Your task to perform on an android device: change the clock display to show seconds Image 0: 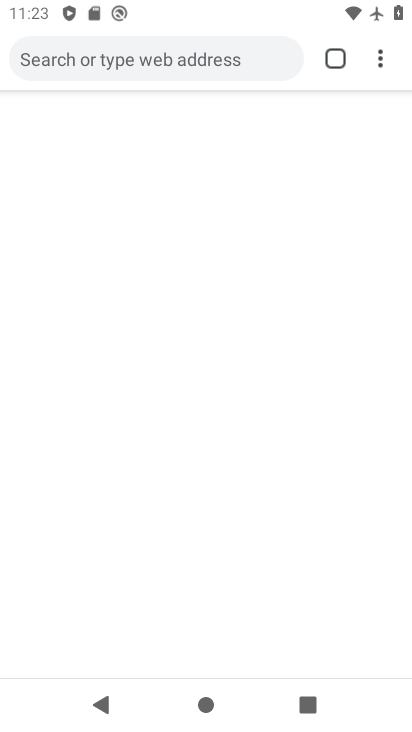
Step 0: drag from (180, 644) to (265, 466)
Your task to perform on an android device: change the clock display to show seconds Image 1: 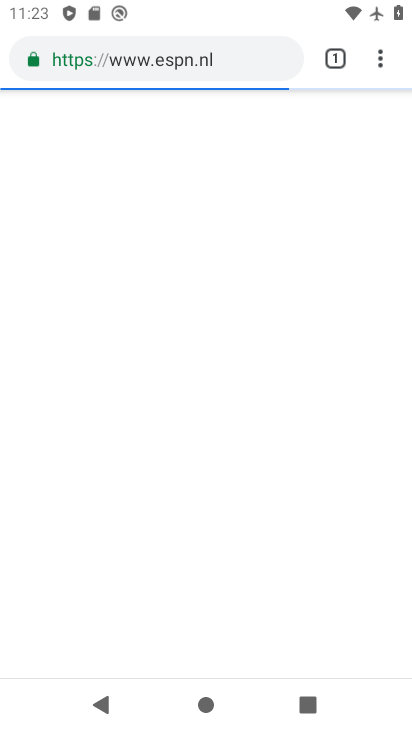
Step 1: press home button
Your task to perform on an android device: change the clock display to show seconds Image 2: 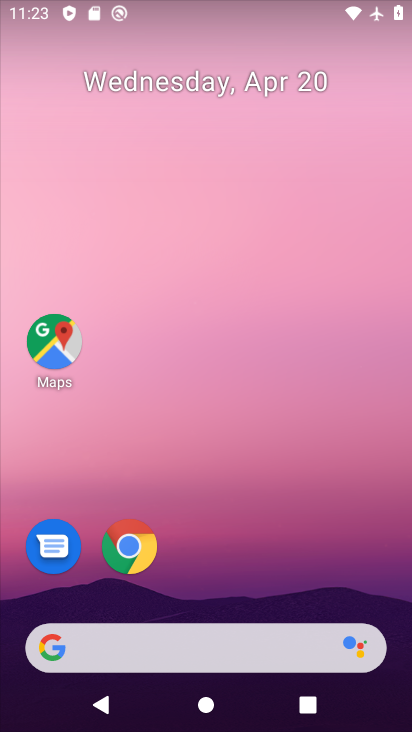
Step 2: drag from (165, 648) to (284, 209)
Your task to perform on an android device: change the clock display to show seconds Image 3: 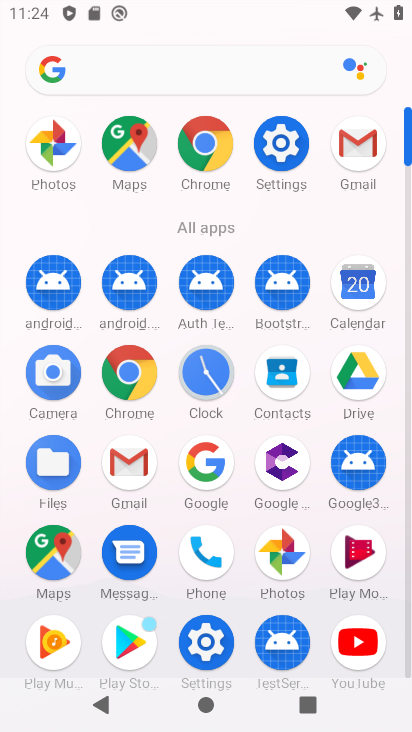
Step 3: click (195, 382)
Your task to perform on an android device: change the clock display to show seconds Image 4: 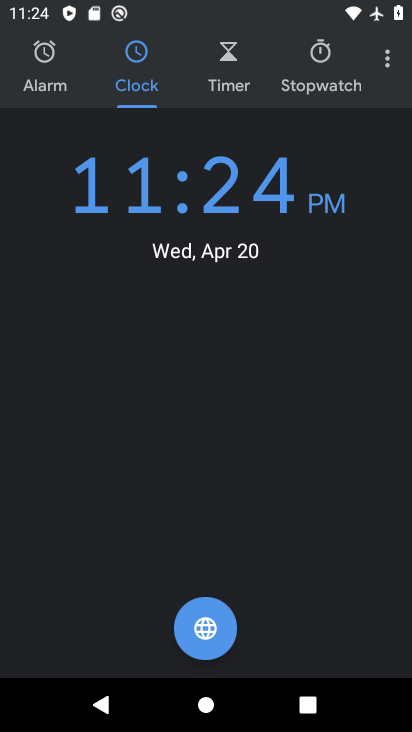
Step 4: click (389, 57)
Your task to perform on an android device: change the clock display to show seconds Image 5: 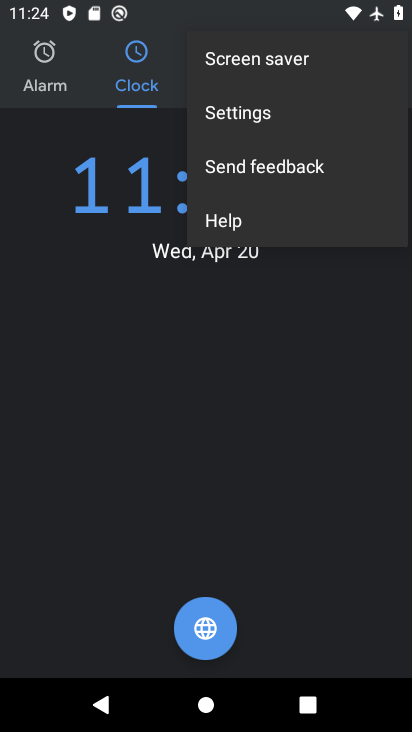
Step 5: click (246, 112)
Your task to perform on an android device: change the clock display to show seconds Image 6: 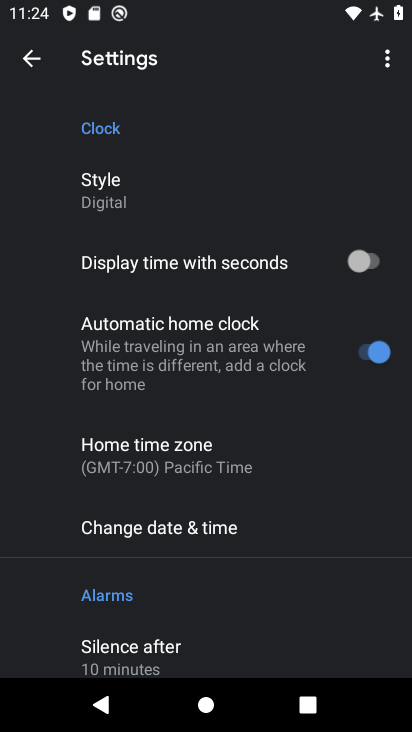
Step 6: click (377, 266)
Your task to perform on an android device: change the clock display to show seconds Image 7: 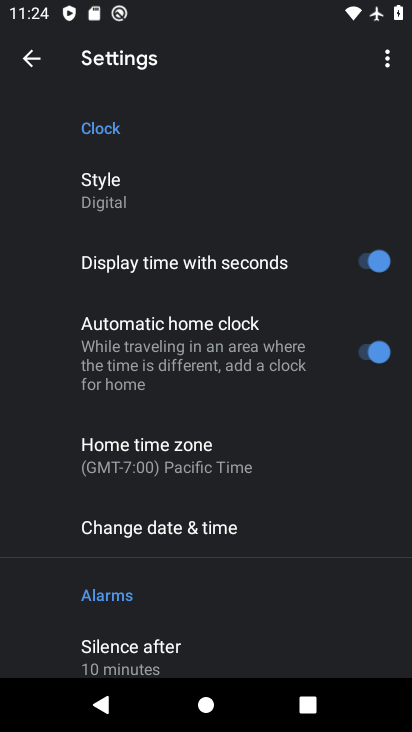
Step 7: task complete